Your task to perform on an android device: Open Google Maps Image 0: 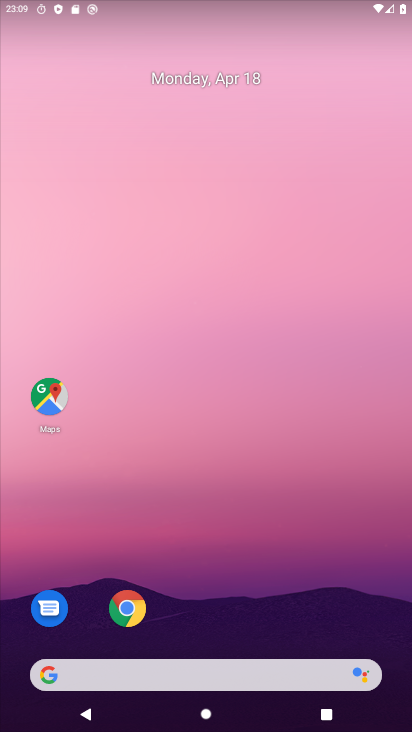
Step 0: drag from (220, 382) to (244, 210)
Your task to perform on an android device: Open Google Maps Image 1: 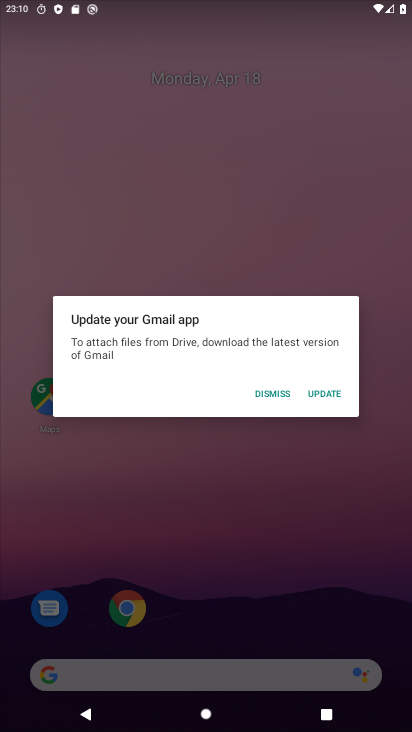
Step 1: click (270, 197)
Your task to perform on an android device: Open Google Maps Image 2: 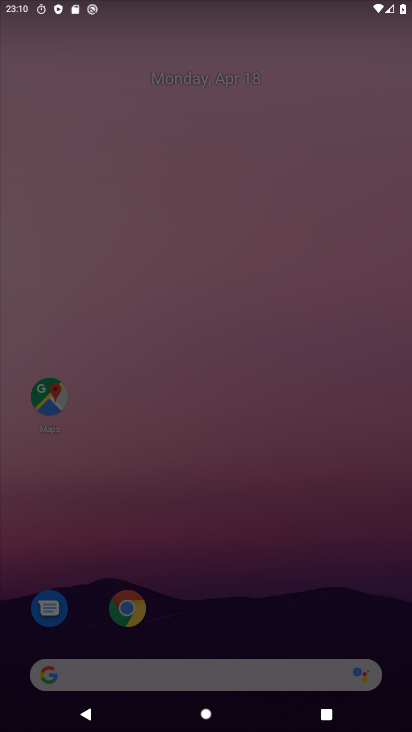
Step 2: press home button
Your task to perform on an android device: Open Google Maps Image 3: 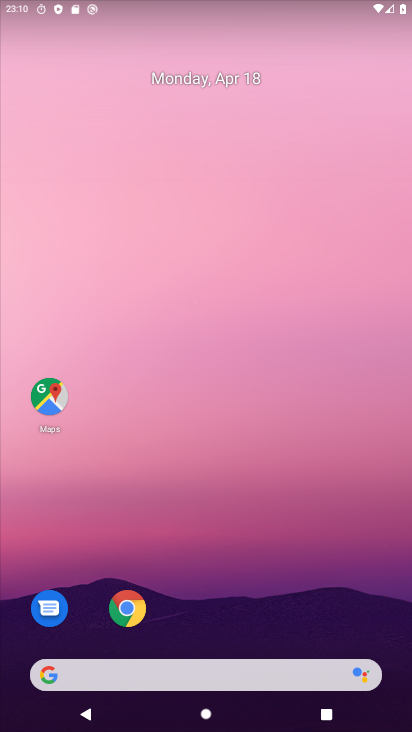
Step 3: click (49, 399)
Your task to perform on an android device: Open Google Maps Image 4: 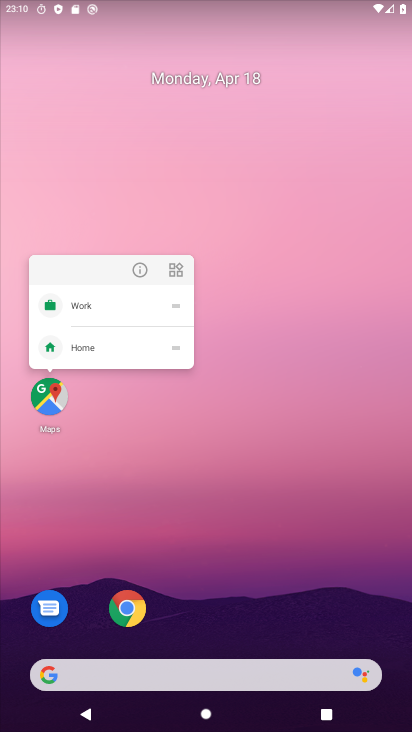
Step 4: click (49, 399)
Your task to perform on an android device: Open Google Maps Image 5: 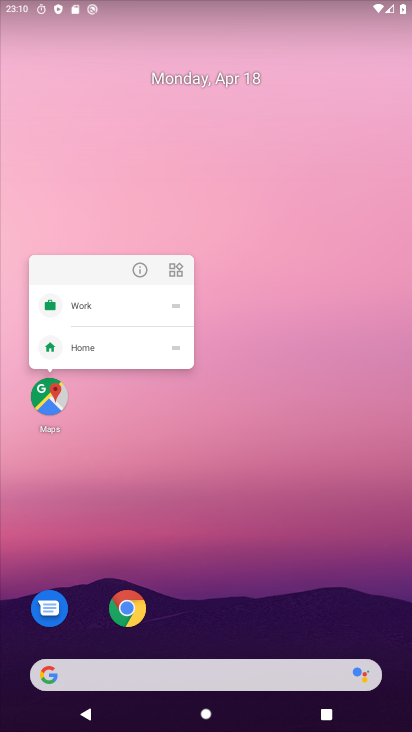
Step 5: click (175, 448)
Your task to perform on an android device: Open Google Maps Image 6: 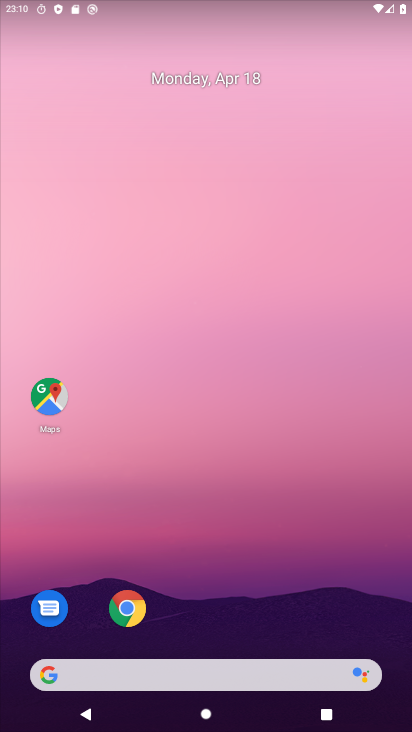
Step 6: click (46, 394)
Your task to perform on an android device: Open Google Maps Image 7: 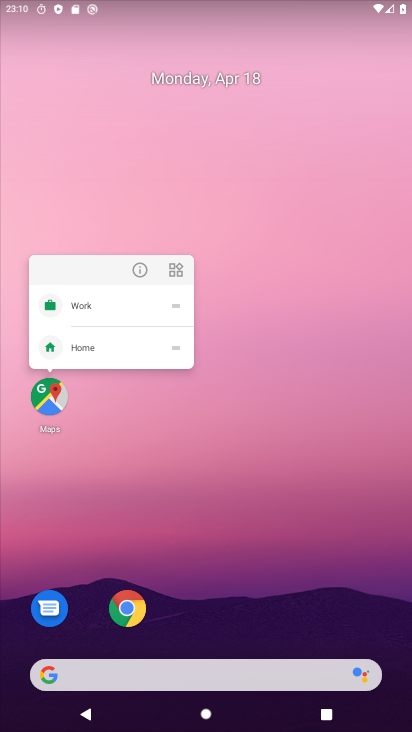
Step 7: click (43, 407)
Your task to perform on an android device: Open Google Maps Image 8: 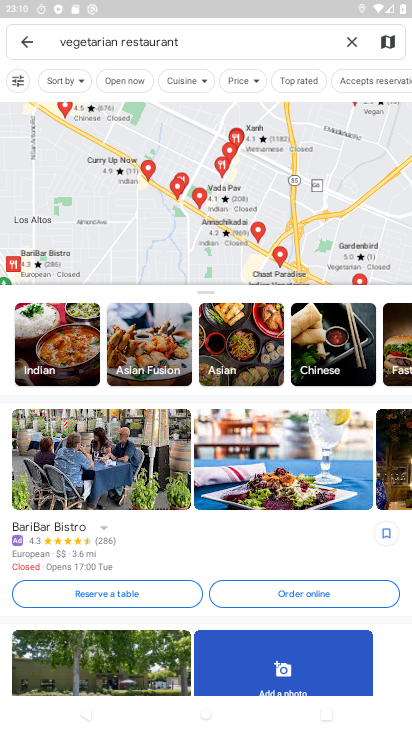
Step 8: task complete